Your task to perform on an android device: Clear the shopping cart on walmart.com. Add "energizer triple a" to the cart on walmart.com Image 0: 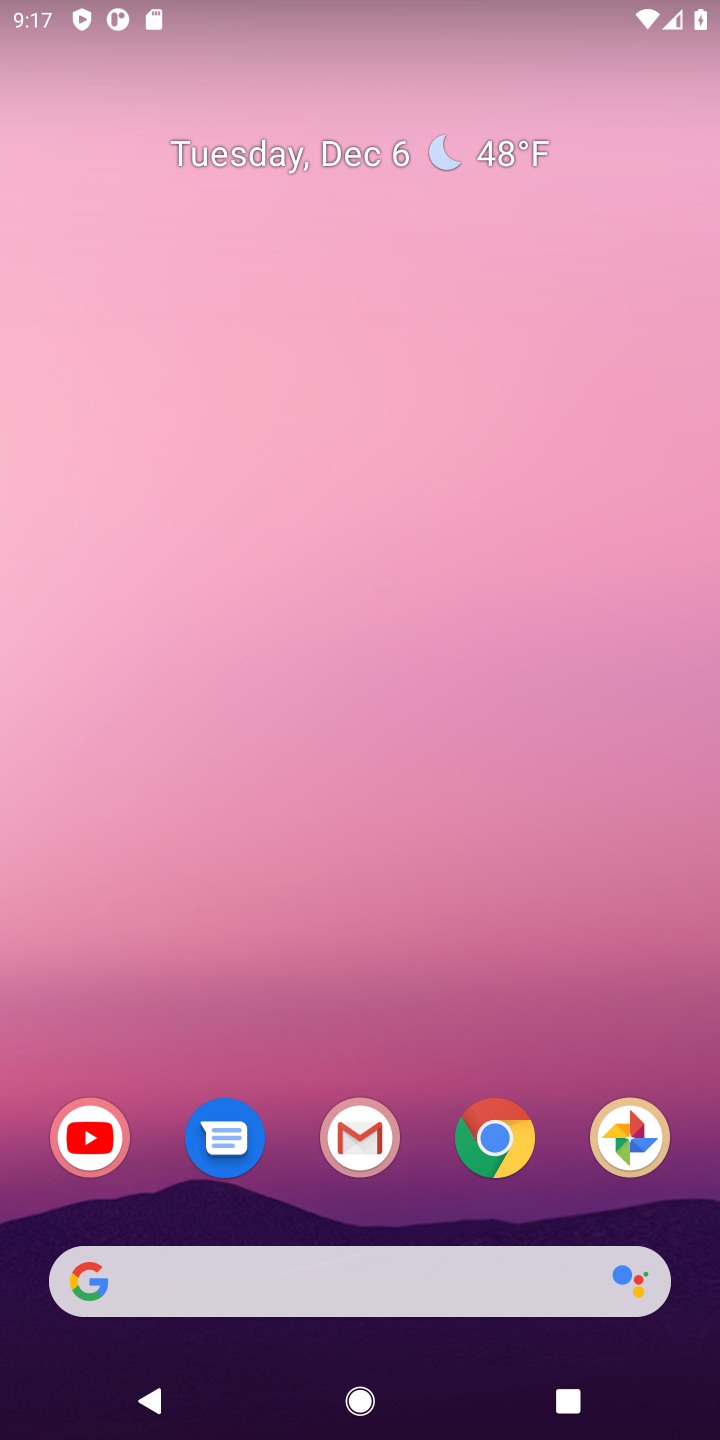
Step 0: click (487, 1134)
Your task to perform on an android device: Clear the shopping cart on walmart.com. Add "energizer triple a" to the cart on walmart.com Image 1: 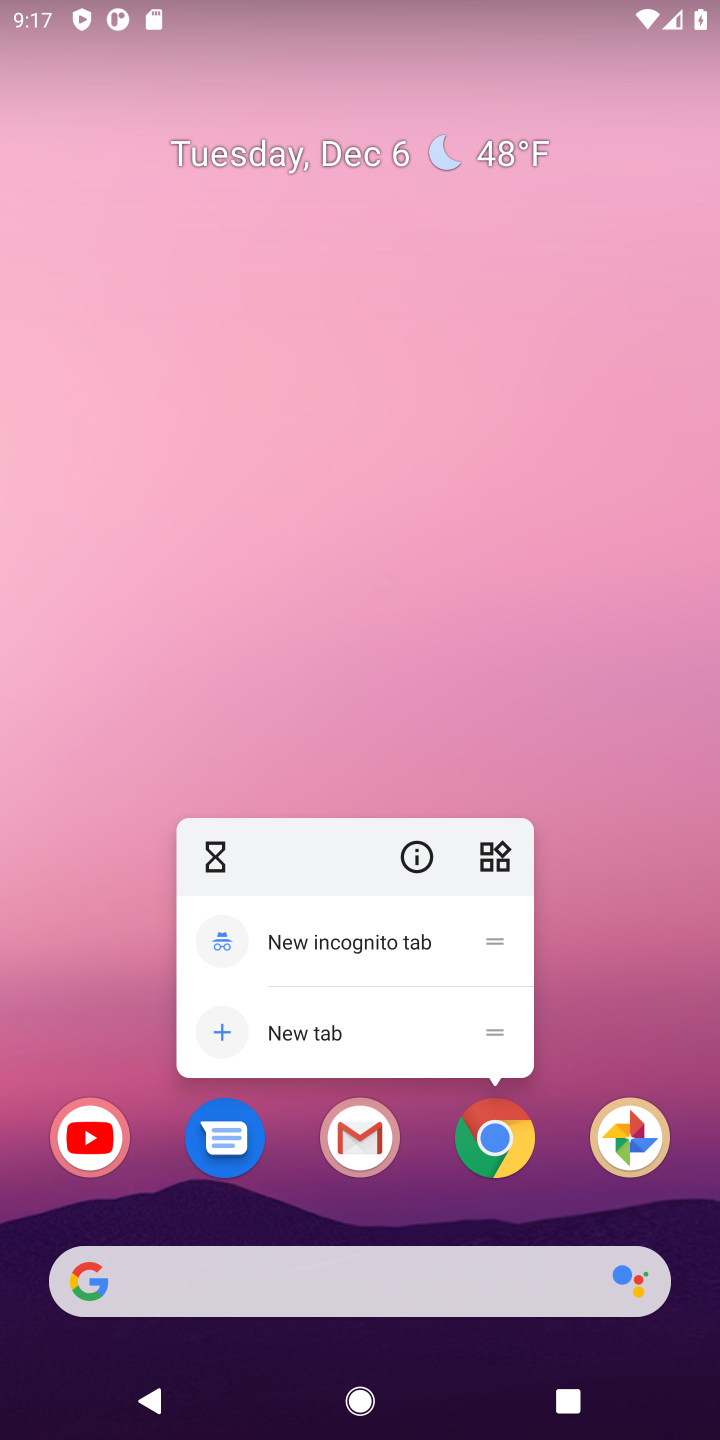
Step 1: click (490, 1146)
Your task to perform on an android device: Clear the shopping cart on walmart.com. Add "energizer triple a" to the cart on walmart.com Image 2: 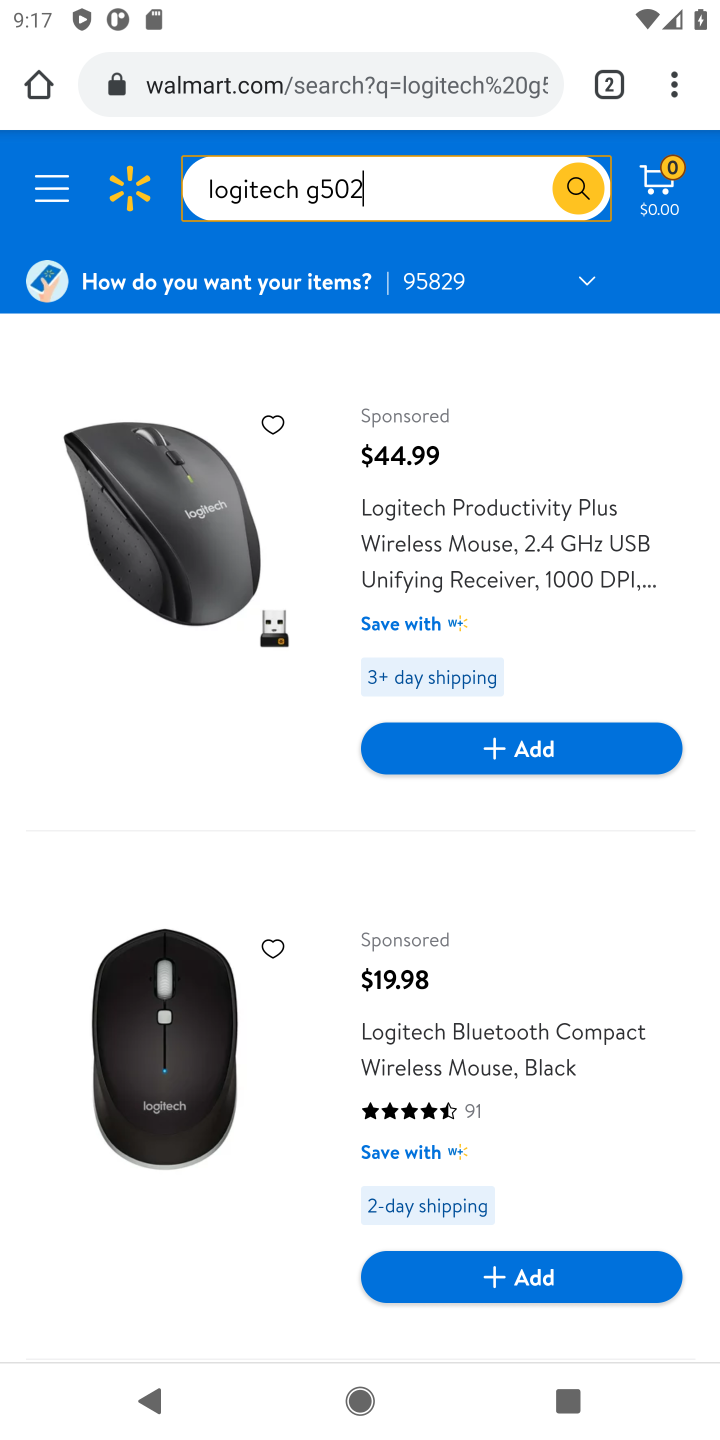
Step 2: click (653, 199)
Your task to perform on an android device: Clear the shopping cart on walmart.com. Add "energizer triple a" to the cart on walmart.com Image 3: 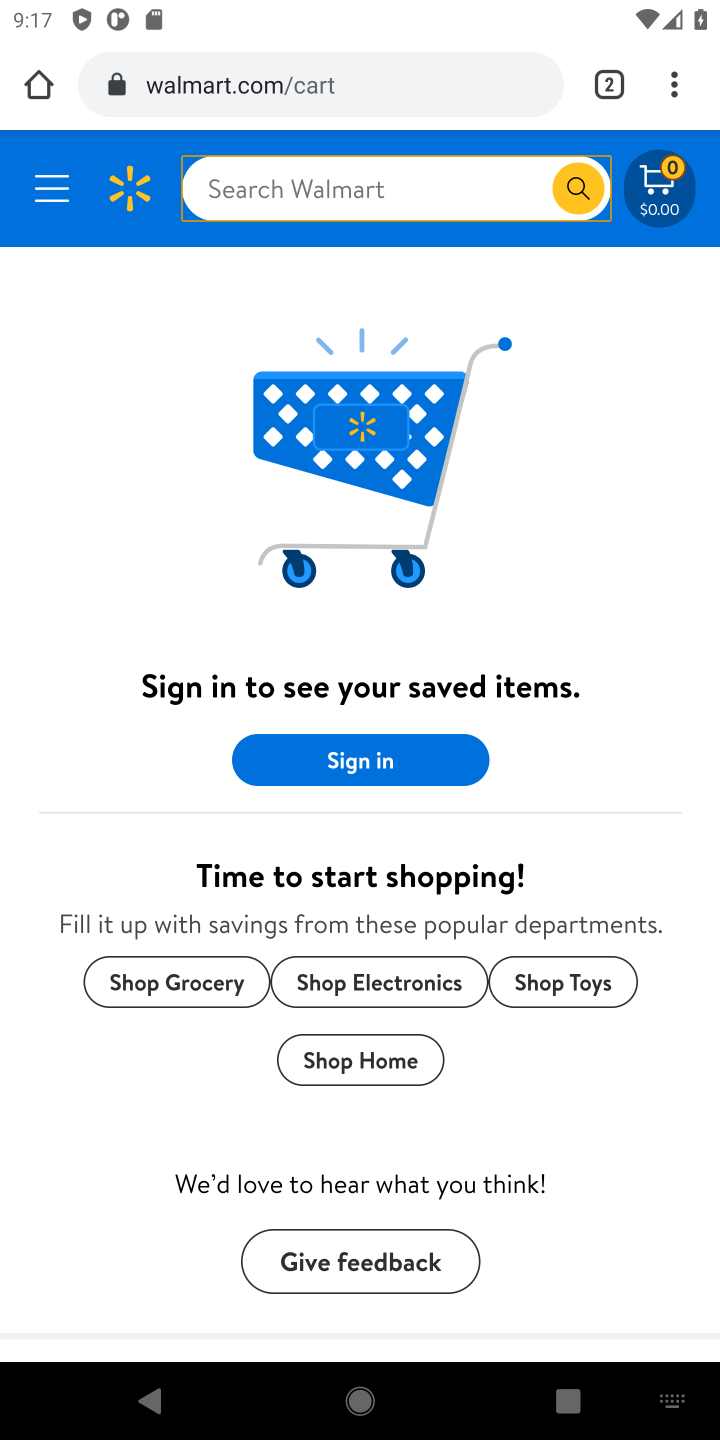
Step 3: click (351, 193)
Your task to perform on an android device: Clear the shopping cart on walmart.com. Add "energizer triple a" to the cart on walmart.com Image 4: 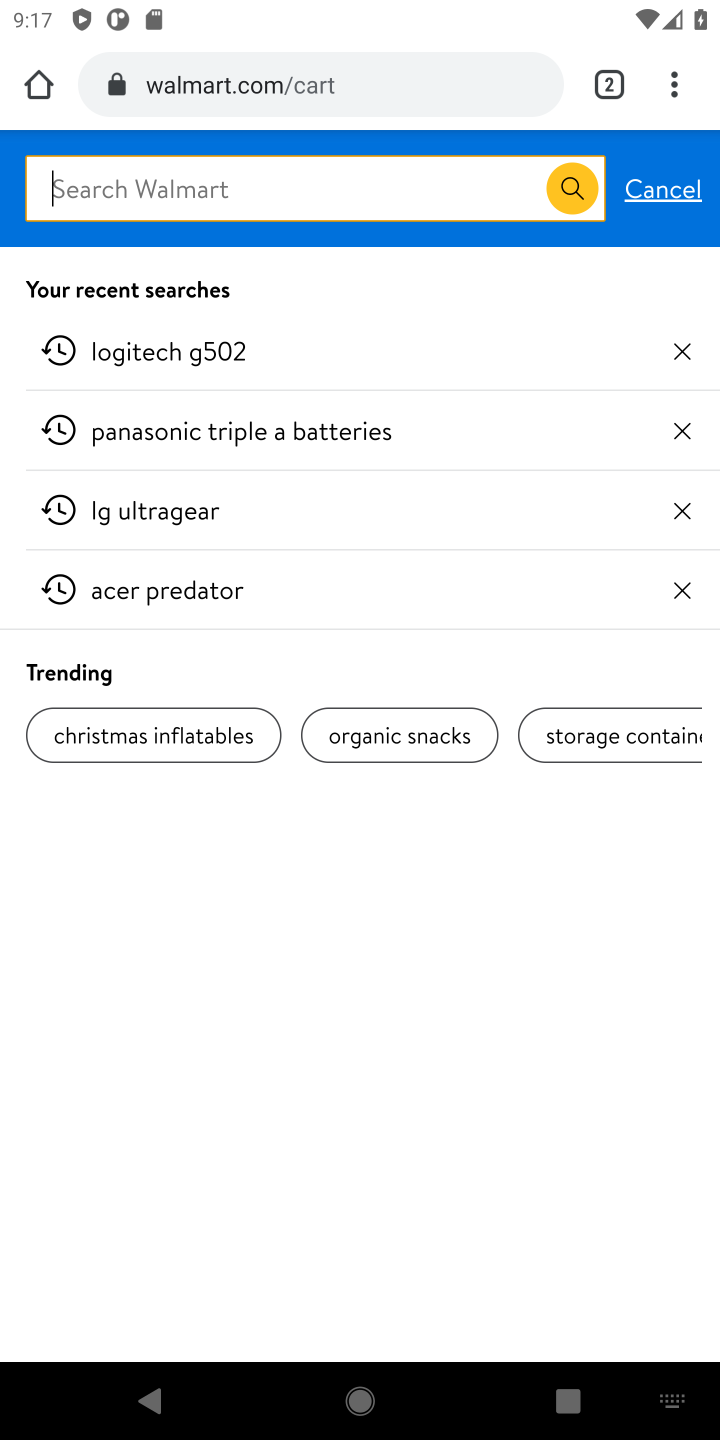
Step 4: type "energizer triple a"
Your task to perform on an android device: Clear the shopping cart on walmart.com. Add "energizer triple a" to the cart on walmart.com Image 5: 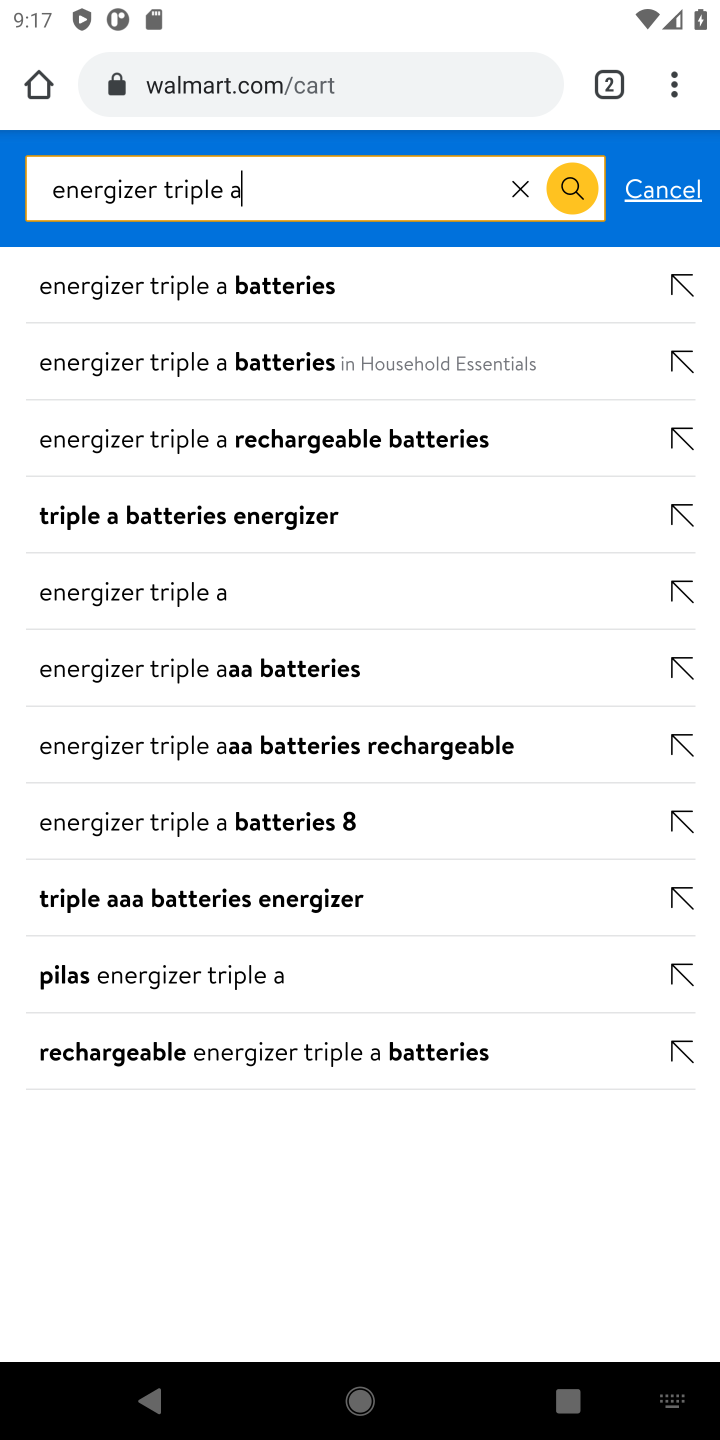
Step 5: click (221, 295)
Your task to perform on an android device: Clear the shopping cart on walmart.com. Add "energizer triple a" to the cart on walmart.com Image 6: 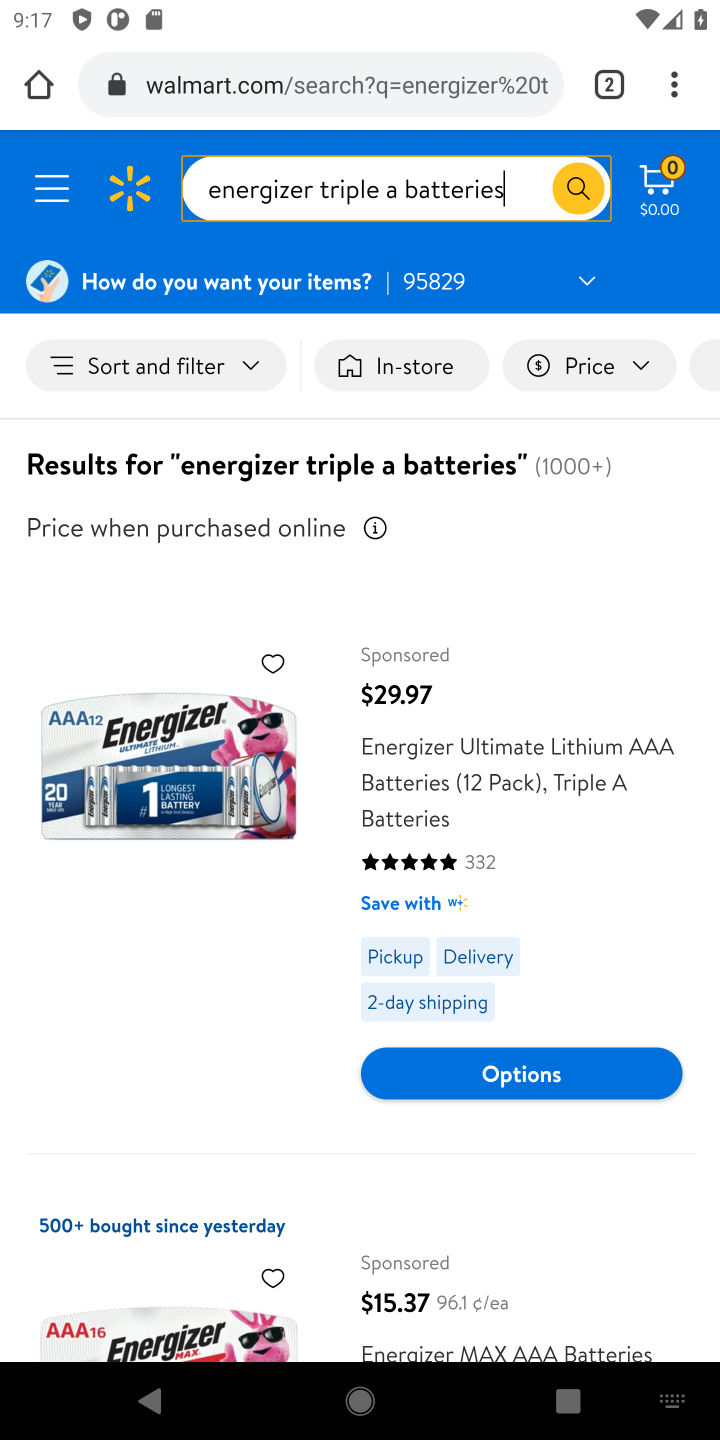
Step 6: click (424, 837)
Your task to perform on an android device: Clear the shopping cart on walmart.com. Add "energizer triple a" to the cart on walmart.com Image 7: 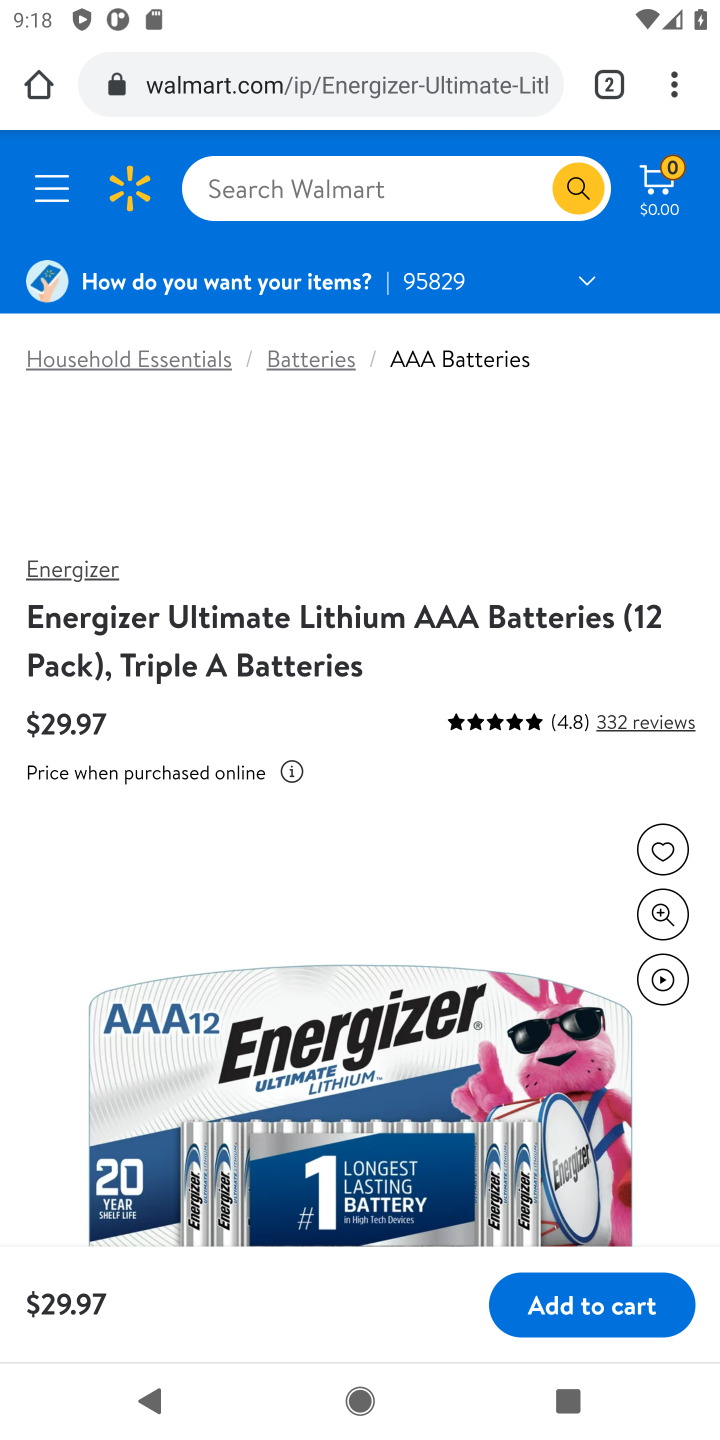
Step 7: click (575, 1301)
Your task to perform on an android device: Clear the shopping cart on walmart.com. Add "energizer triple a" to the cart on walmart.com Image 8: 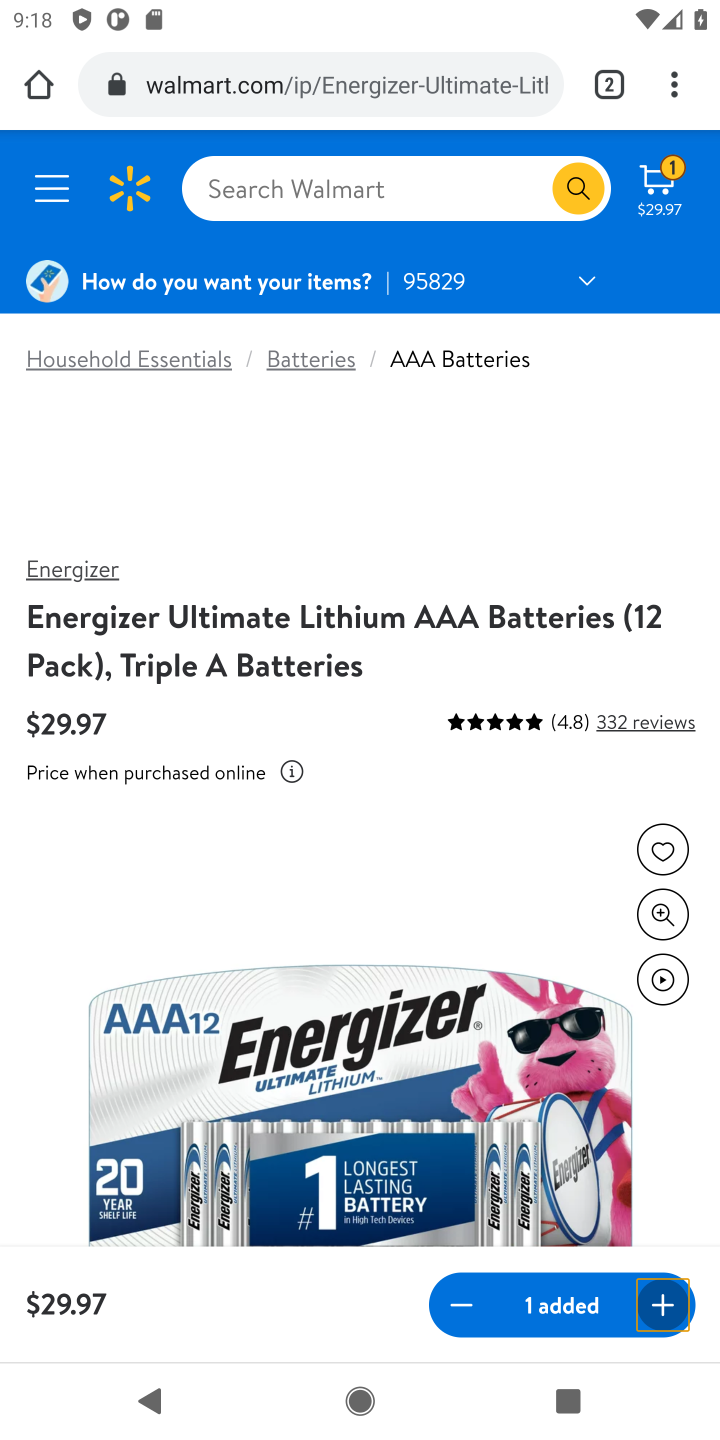
Step 8: task complete